Your task to perform on an android device: Open Google Maps and go to "Timeline" Image 0: 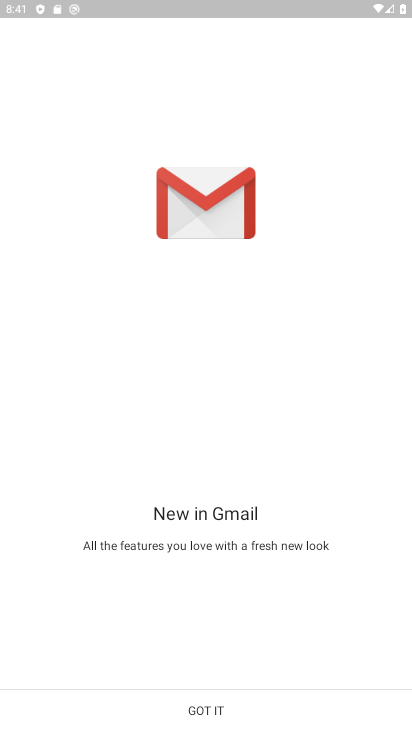
Step 0: drag from (205, 11) to (164, 507)
Your task to perform on an android device: Open Google Maps and go to "Timeline" Image 1: 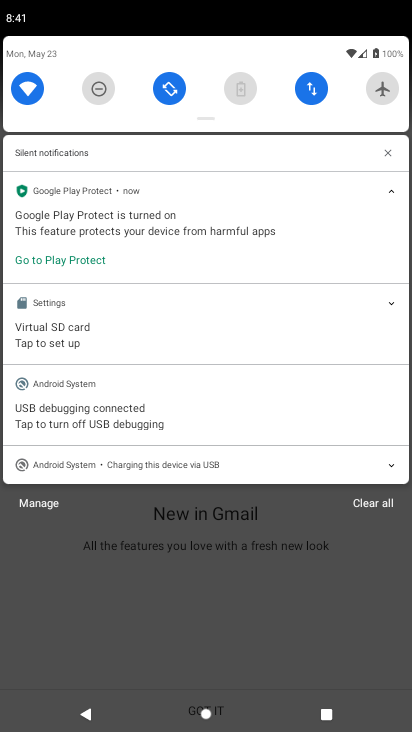
Step 1: press home button
Your task to perform on an android device: Open Google Maps and go to "Timeline" Image 2: 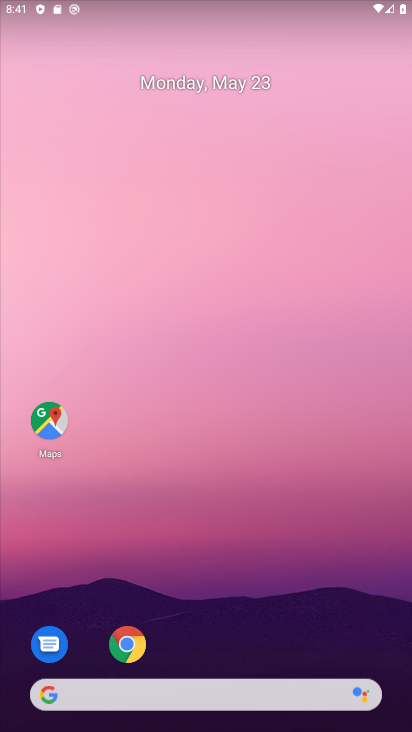
Step 2: click (50, 412)
Your task to perform on an android device: Open Google Maps and go to "Timeline" Image 3: 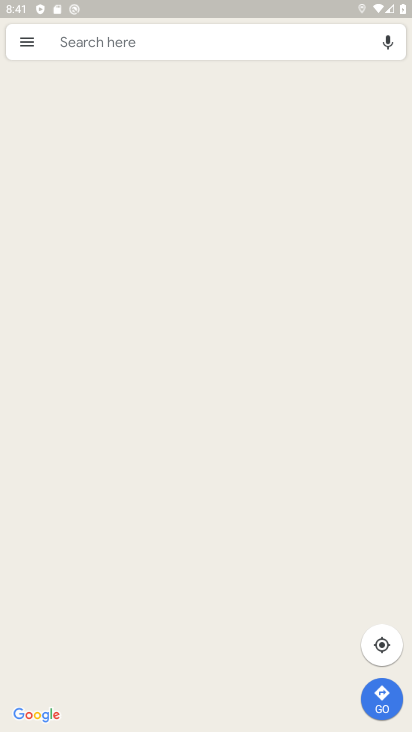
Step 3: click (26, 34)
Your task to perform on an android device: Open Google Maps and go to "Timeline" Image 4: 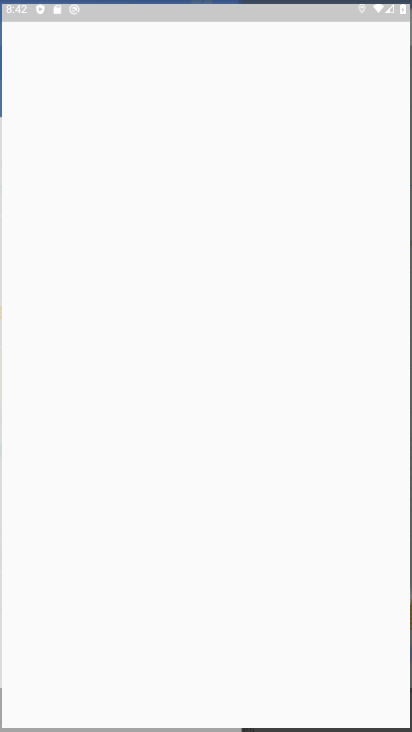
Step 4: click (89, 184)
Your task to perform on an android device: Open Google Maps and go to "Timeline" Image 5: 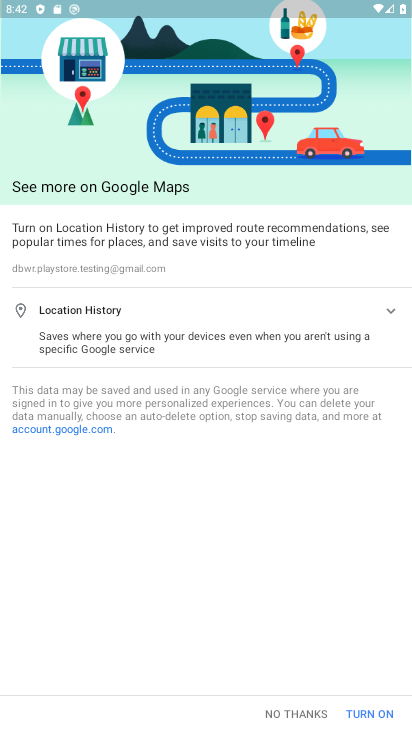
Step 5: click (364, 707)
Your task to perform on an android device: Open Google Maps and go to "Timeline" Image 6: 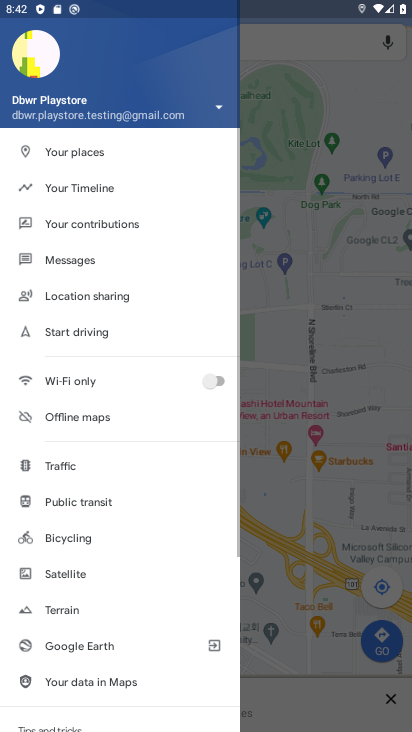
Step 6: click (79, 184)
Your task to perform on an android device: Open Google Maps and go to "Timeline" Image 7: 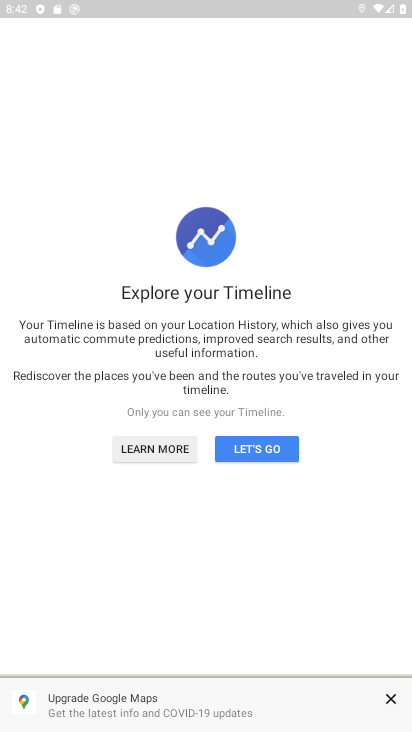
Step 7: click (260, 449)
Your task to perform on an android device: Open Google Maps and go to "Timeline" Image 8: 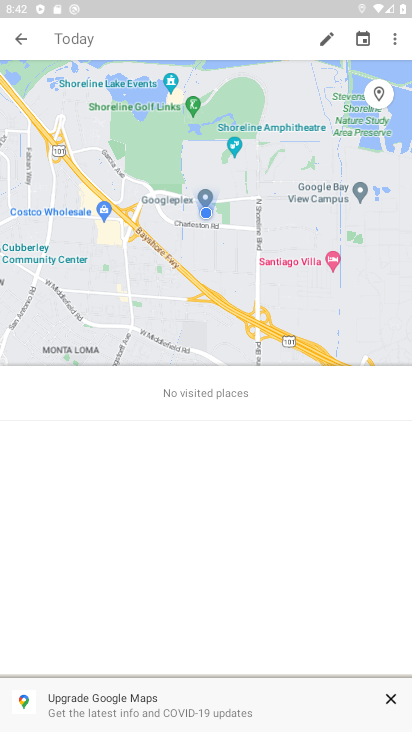
Step 8: task complete